Your task to perform on an android device: change text size in settings app Image 0: 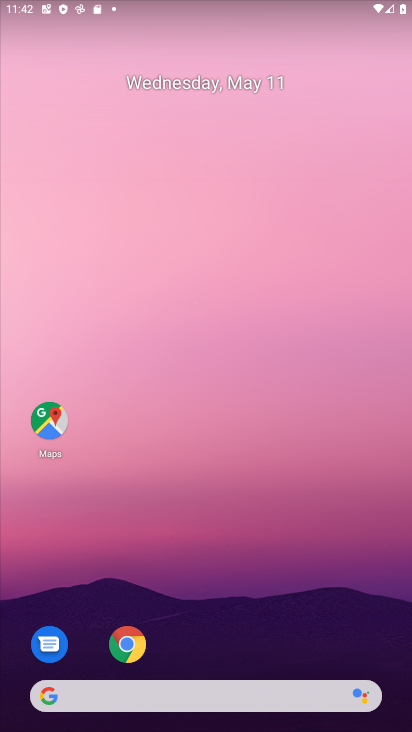
Step 0: drag from (352, 646) to (269, 115)
Your task to perform on an android device: change text size in settings app Image 1: 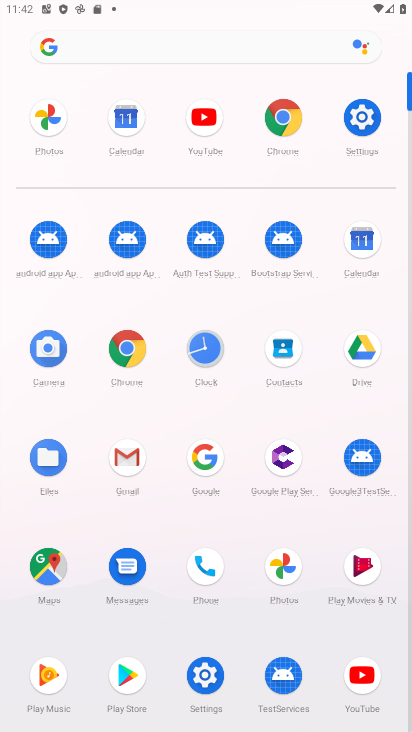
Step 1: click (352, 136)
Your task to perform on an android device: change text size in settings app Image 2: 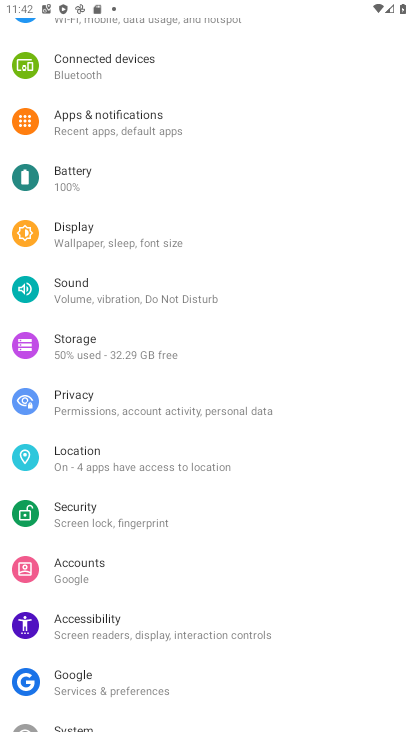
Step 2: click (129, 249)
Your task to perform on an android device: change text size in settings app Image 3: 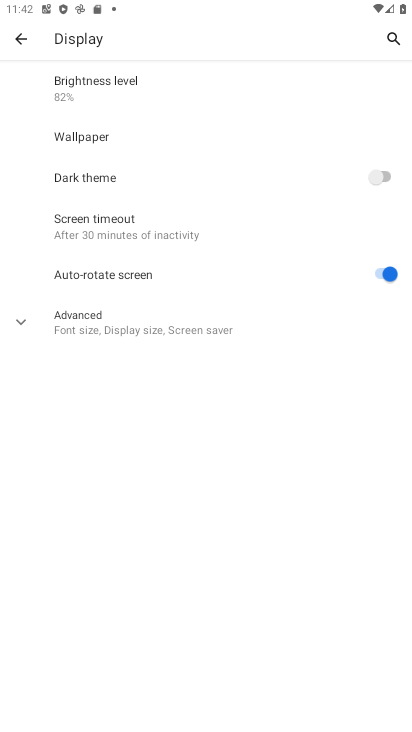
Step 3: click (163, 308)
Your task to perform on an android device: change text size in settings app Image 4: 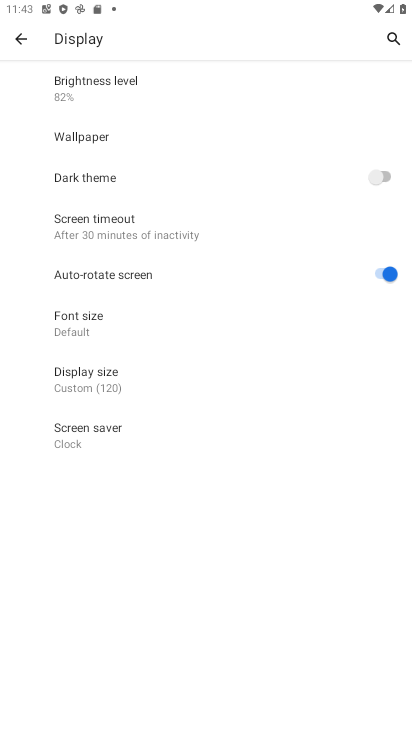
Step 4: click (390, 166)
Your task to perform on an android device: change text size in settings app Image 5: 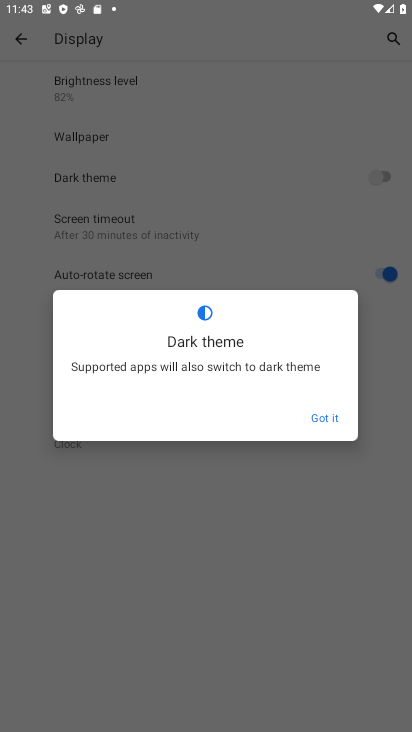
Step 5: click (329, 421)
Your task to perform on an android device: change text size in settings app Image 6: 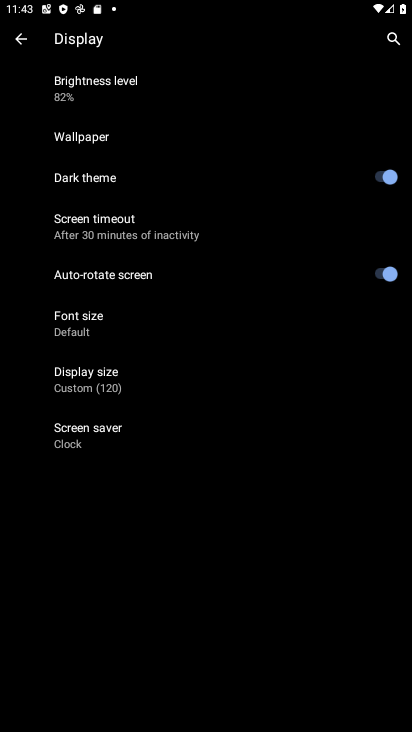
Step 6: click (195, 326)
Your task to perform on an android device: change text size in settings app Image 7: 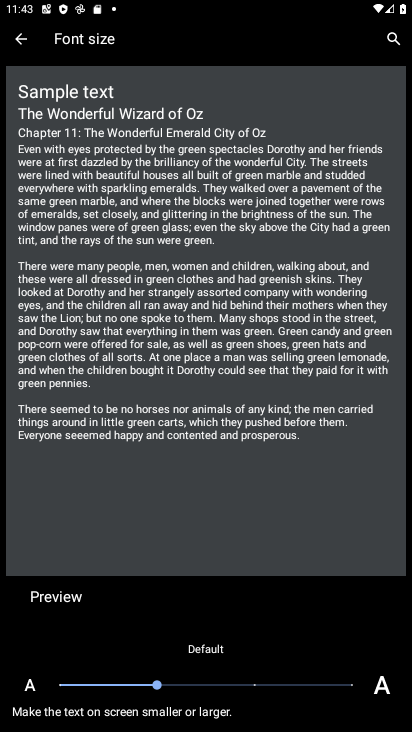
Step 7: click (224, 681)
Your task to perform on an android device: change text size in settings app Image 8: 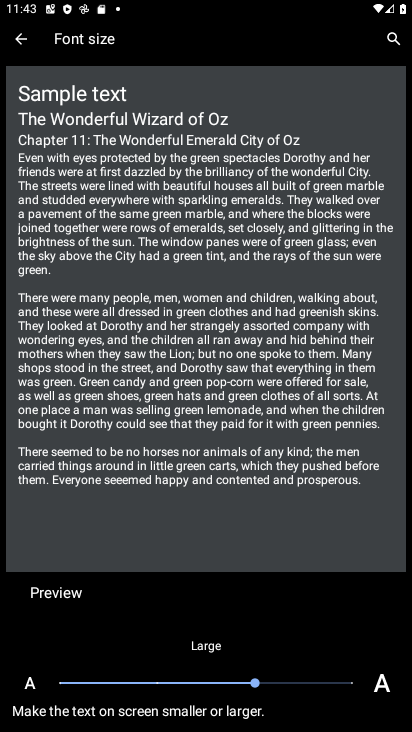
Step 8: task complete